Your task to perform on an android device: change notification settings in the gmail app Image 0: 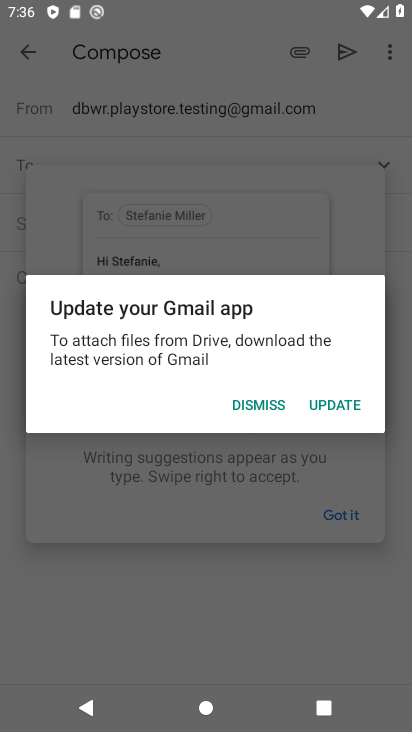
Step 0: press home button
Your task to perform on an android device: change notification settings in the gmail app Image 1: 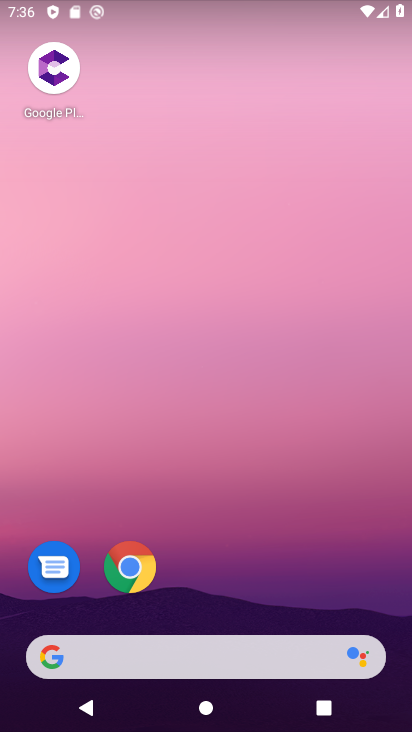
Step 1: drag from (207, 540) to (224, 35)
Your task to perform on an android device: change notification settings in the gmail app Image 2: 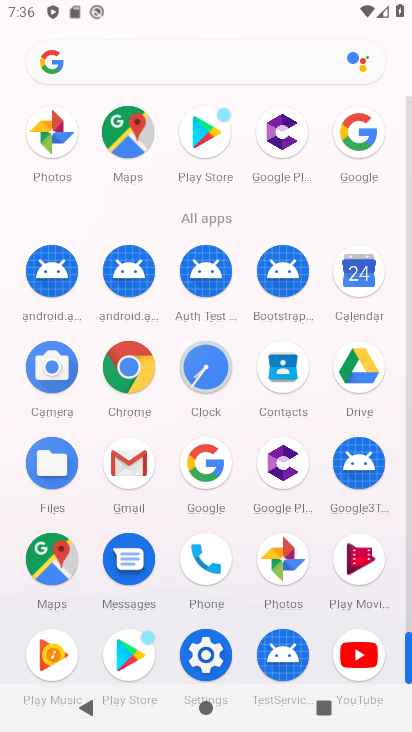
Step 2: click (126, 464)
Your task to perform on an android device: change notification settings in the gmail app Image 3: 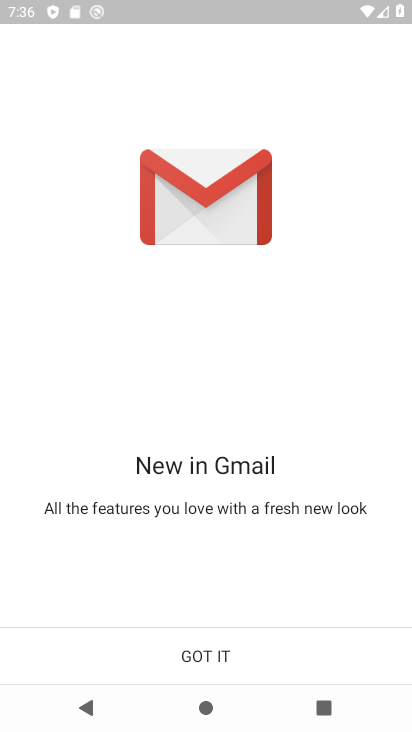
Step 3: click (192, 654)
Your task to perform on an android device: change notification settings in the gmail app Image 4: 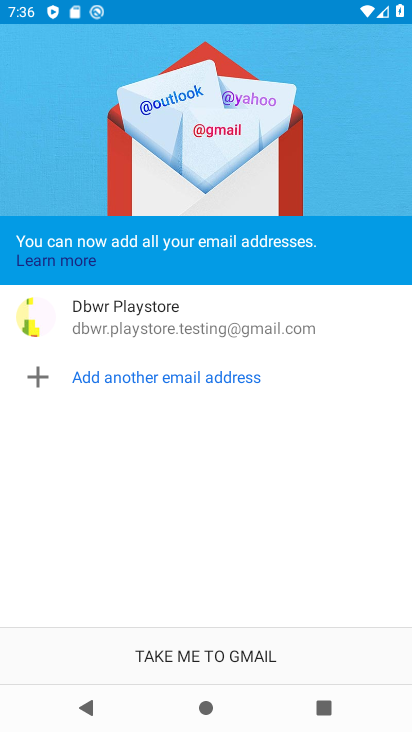
Step 4: click (192, 654)
Your task to perform on an android device: change notification settings in the gmail app Image 5: 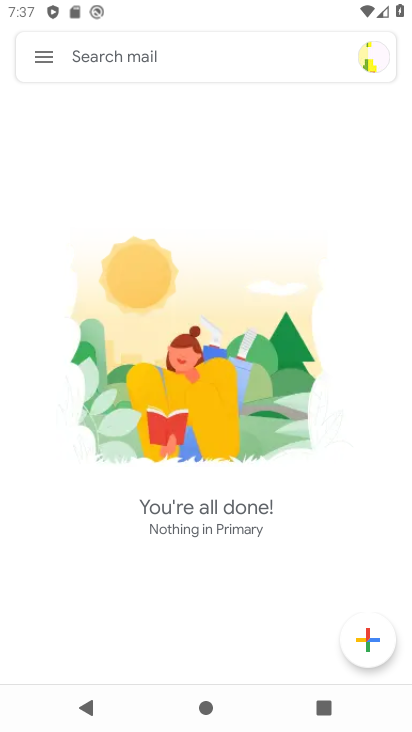
Step 5: click (44, 55)
Your task to perform on an android device: change notification settings in the gmail app Image 6: 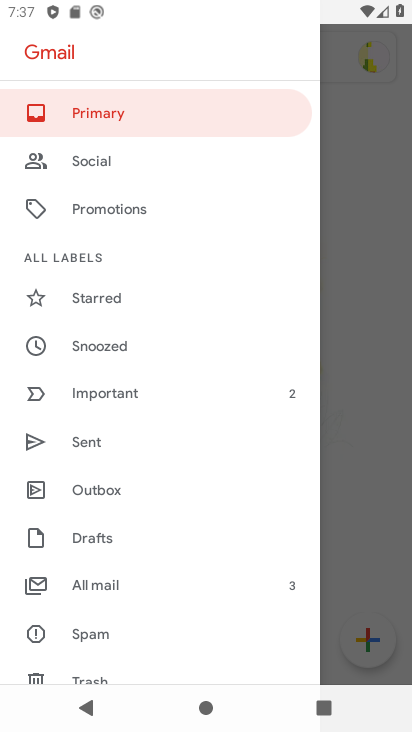
Step 6: drag from (113, 456) to (145, 342)
Your task to perform on an android device: change notification settings in the gmail app Image 7: 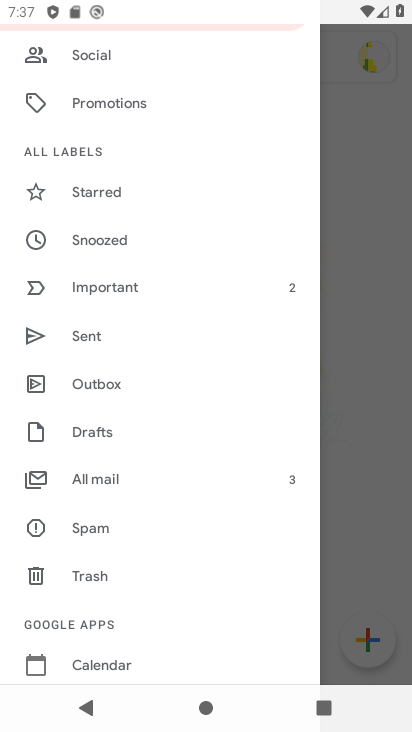
Step 7: drag from (133, 488) to (161, 398)
Your task to perform on an android device: change notification settings in the gmail app Image 8: 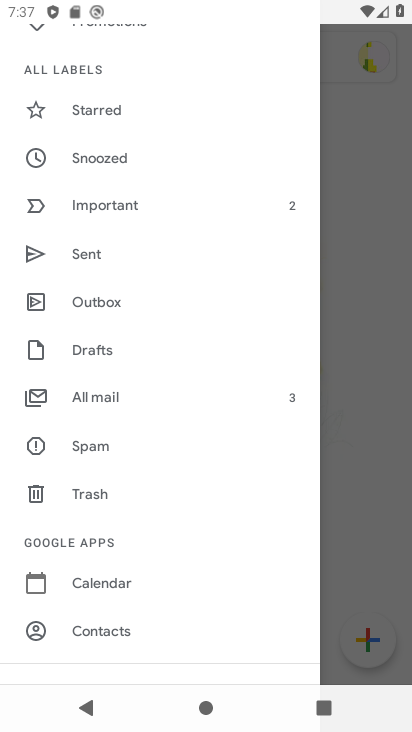
Step 8: drag from (140, 479) to (170, 403)
Your task to perform on an android device: change notification settings in the gmail app Image 9: 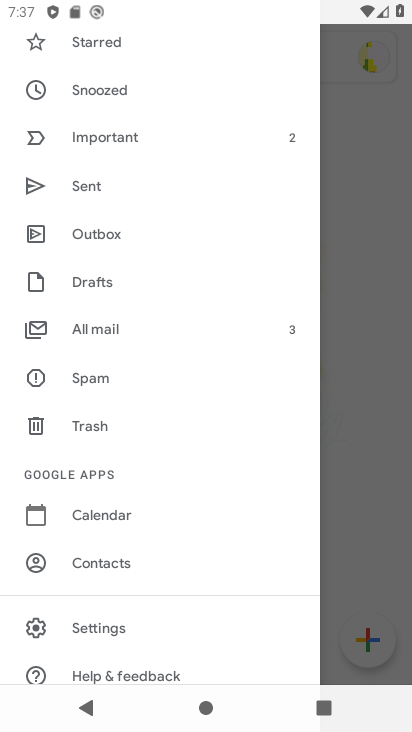
Step 9: click (105, 630)
Your task to perform on an android device: change notification settings in the gmail app Image 10: 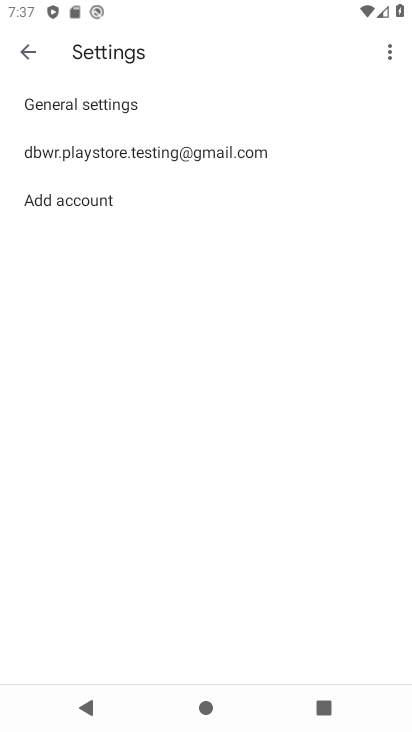
Step 10: click (159, 152)
Your task to perform on an android device: change notification settings in the gmail app Image 11: 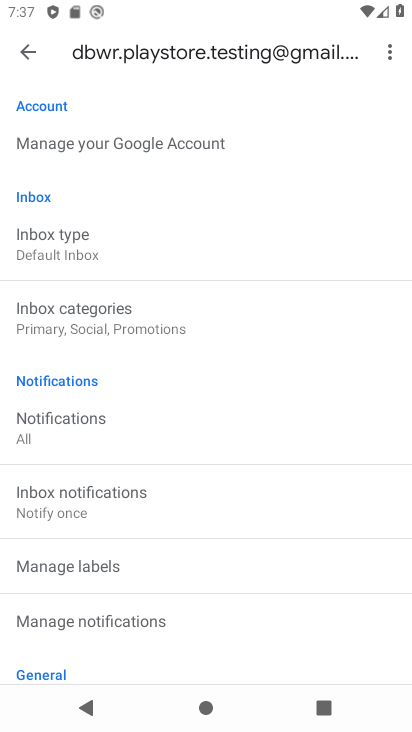
Step 11: drag from (111, 451) to (146, 363)
Your task to perform on an android device: change notification settings in the gmail app Image 12: 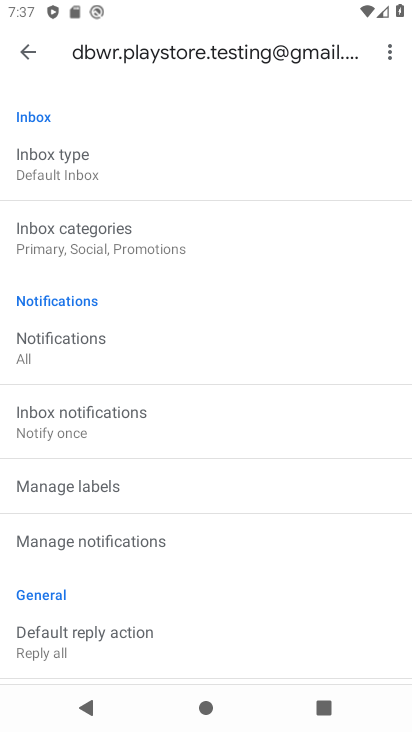
Step 12: click (132, 541)
Your task to perform on an android device: change notification settings in the gmail app Image 13: 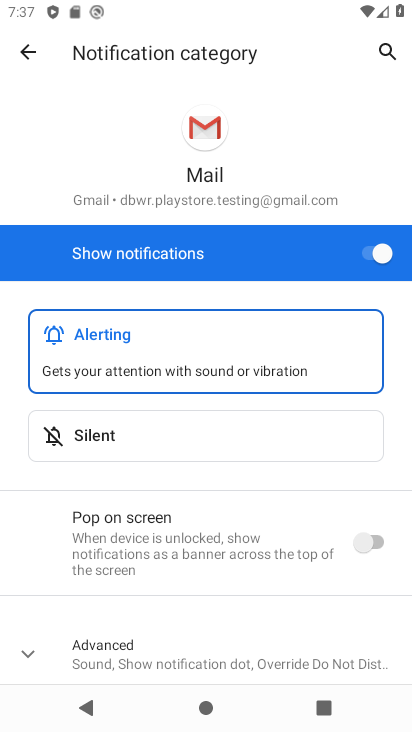
Step 13: click (382, 258)
Your task to perform on an android device: change notification settings in the gmail app Image 14: 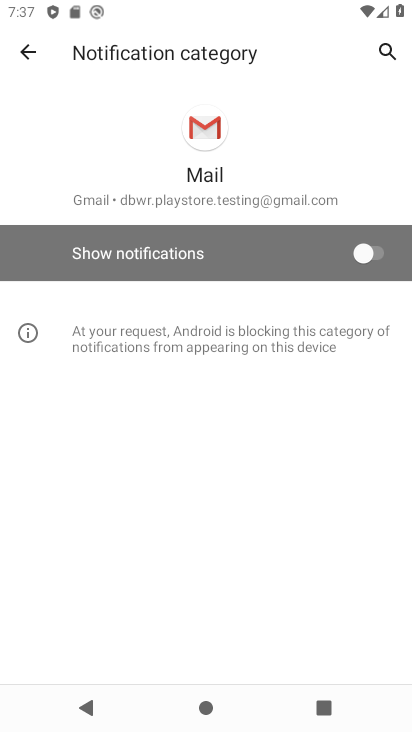
Step 14: task complete